Your task to perform on an android device: Open CNN.com Image 0: 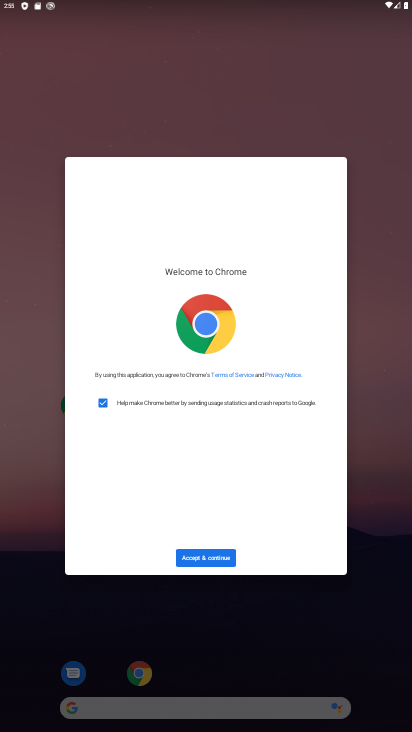
Step 0: click (197, 559)
Your task to perform on an android device: Open CNN.com Image 1: 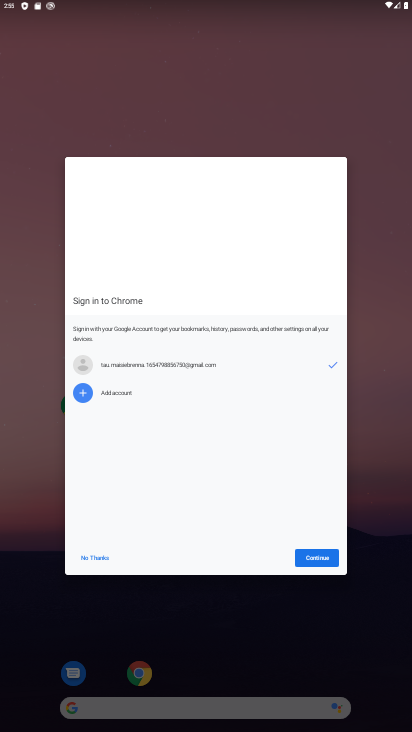
Step 1: click (325, 558)
Your task to perform on an android device: Open CNN.com Image 2: 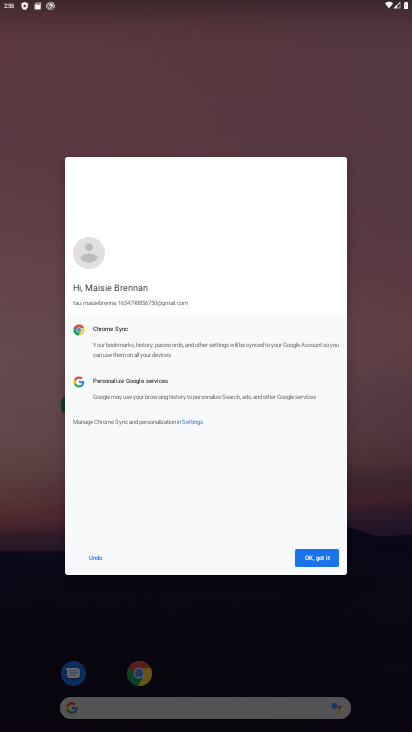
Step 2: click (325, 558)
Your task to perform on an android device: Open CNN.com Image 3: 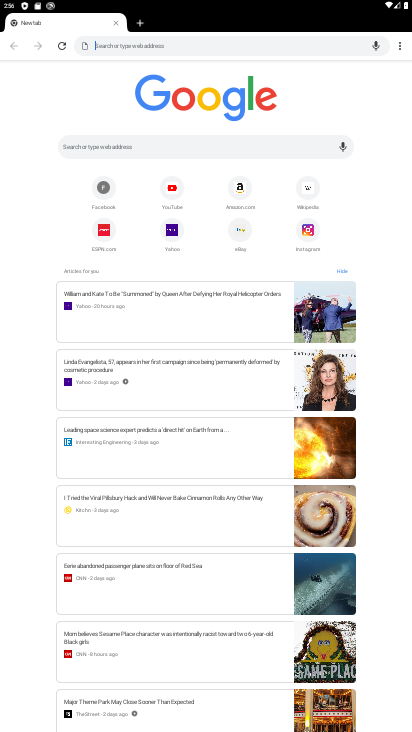
Step 3: click (266, 46)
Your task to perform on an android device: Open CNN.com Image 4: 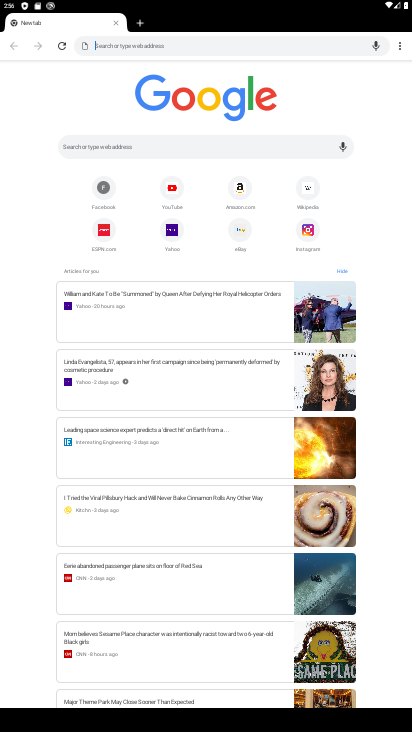
Step 4: type "cnn.com"
Your task to perform on an android device: Open CNN.com Image 5: 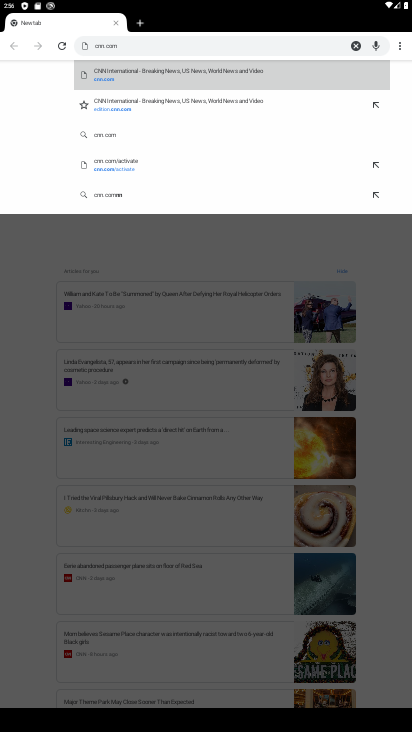
Step 5: click (167, 72)
Your task to perform on an android device: Open CNN.com Image 6: 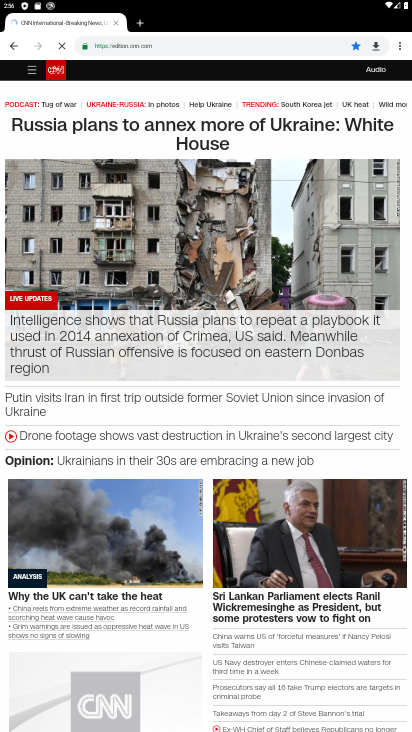
Step 6: task complete